Your task to perform on an android device: Go to Maps Image 0: 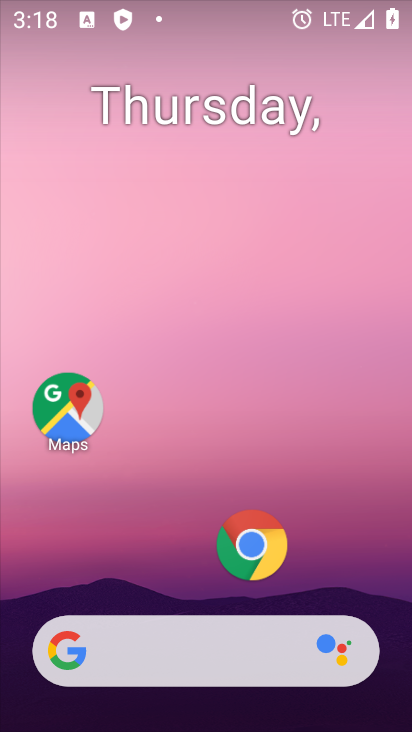
Step 0: click (273, 12)
Your task to perform on an android device: Go to Maps Image 1: 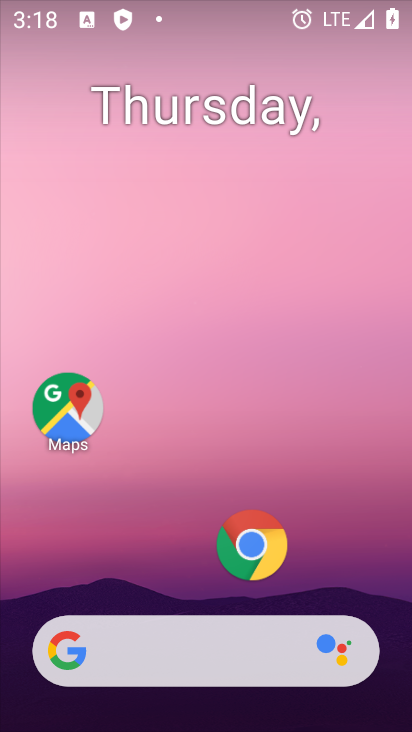
Step 1: drag from (293, 534) to (270, 10)
Your task to perform on an android device: Go to Maps Image 2: 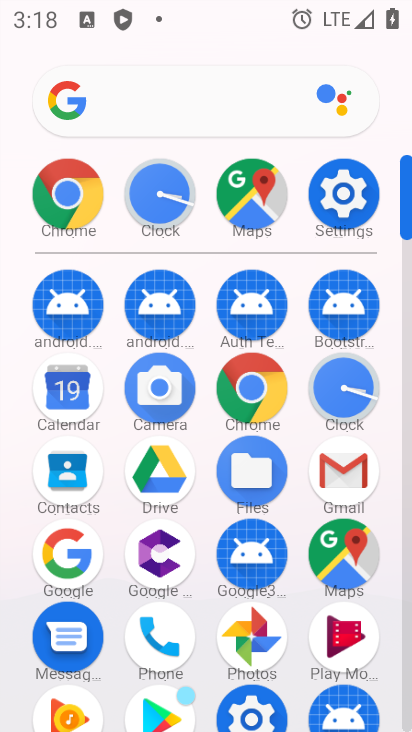
Step 2: click (326, 557)
Your task to perform on an android device: Go to Maps Image 3: 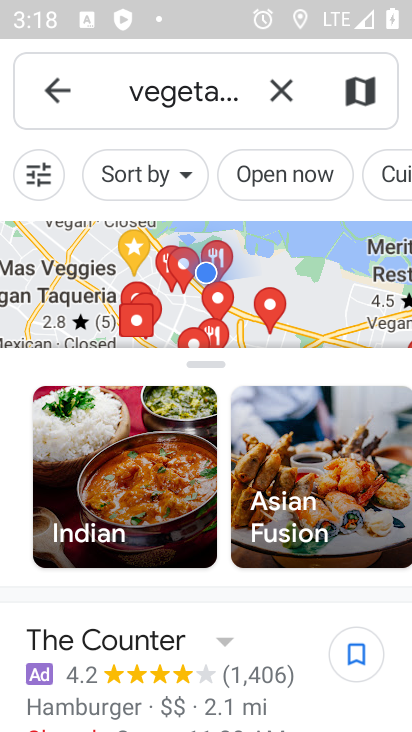
Step 3: task complete